Your task to perform on an android device: check data usage Image 0: 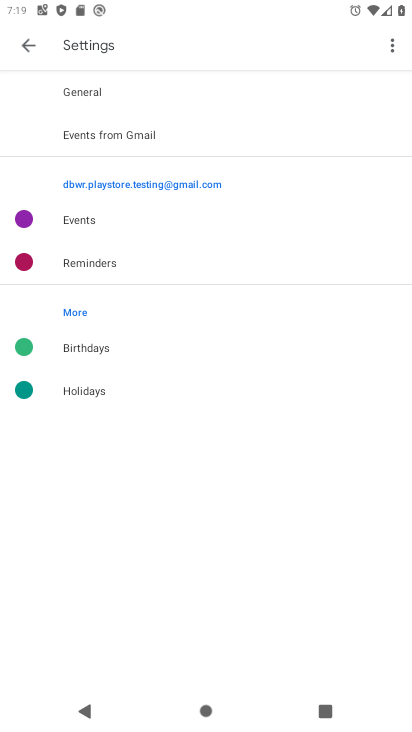
Step 0: press home button
Your task to perform on an android device: check data usage Image 1: 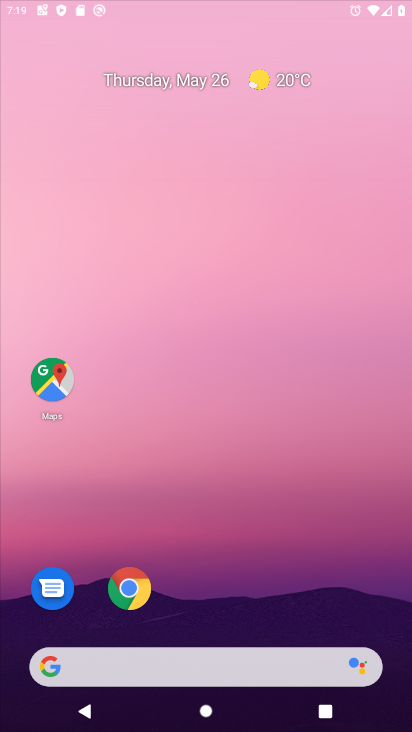
Step 1: drag from (346, 646) to (294, 14)
Your task to perform on an android device: check data usage Image 2: 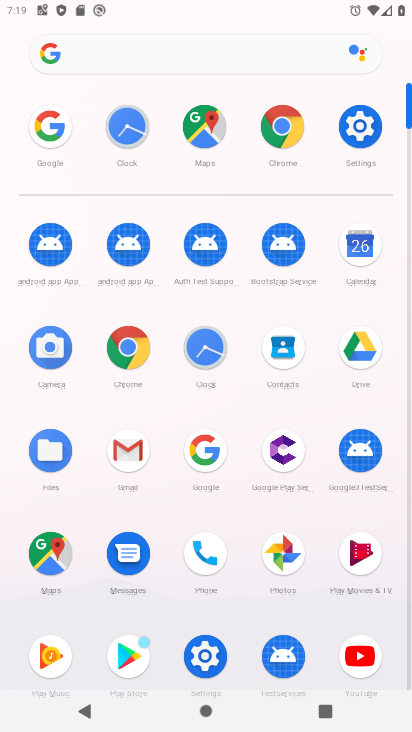
Step 2: click (361, 116)
Your task to perform on an android device: check data usage Image 3: 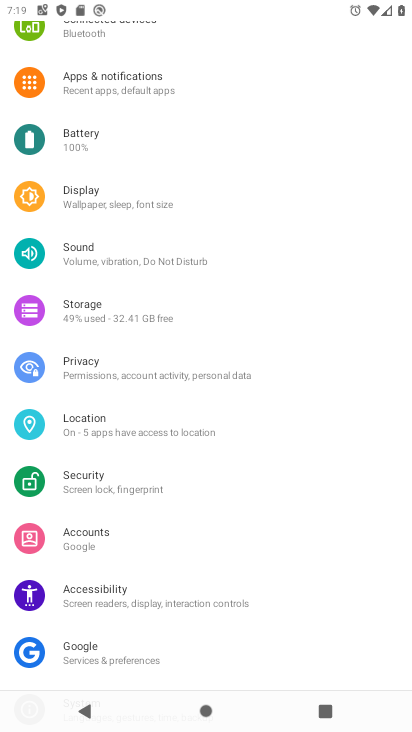
Step 3: drag from (194, 93) to (230, 590)
Your task to perform on an android device: check data usage Image 4: 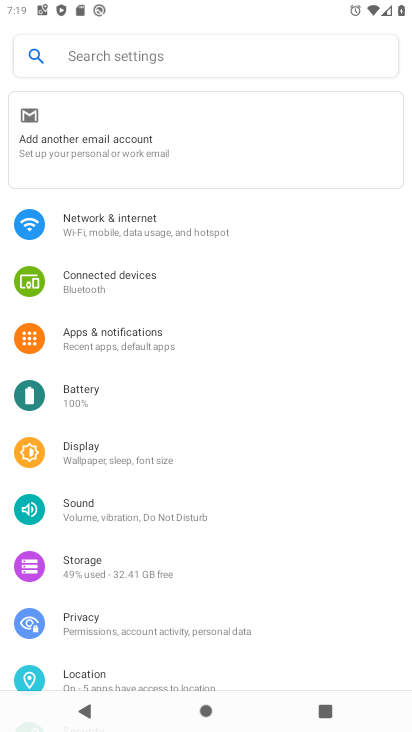
Step 4: click (183, 242)
Your task to perform on an android device: check data usage Image 5: 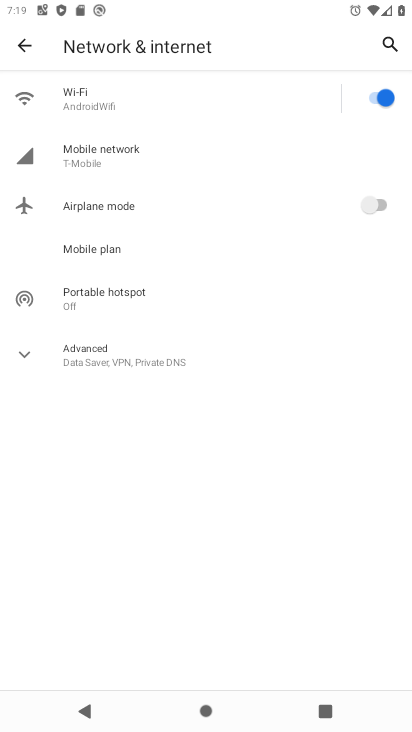
Step 5: click (92, 151)
Your task to perform on an android device: check data usage Image 6: 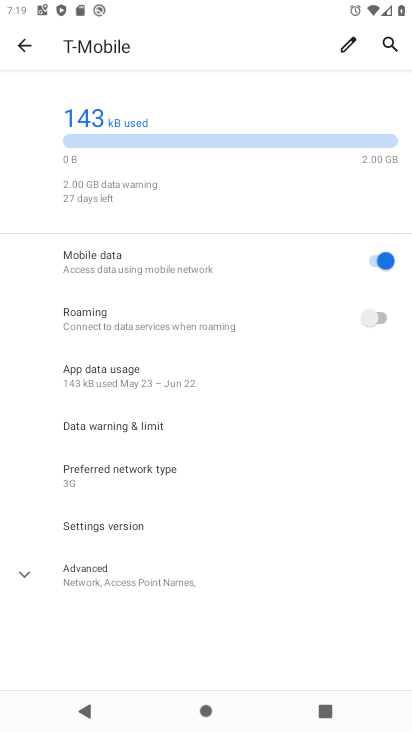
Step 6: click (159, 397)
Your task to perform on an android device: check data usage Image 7: 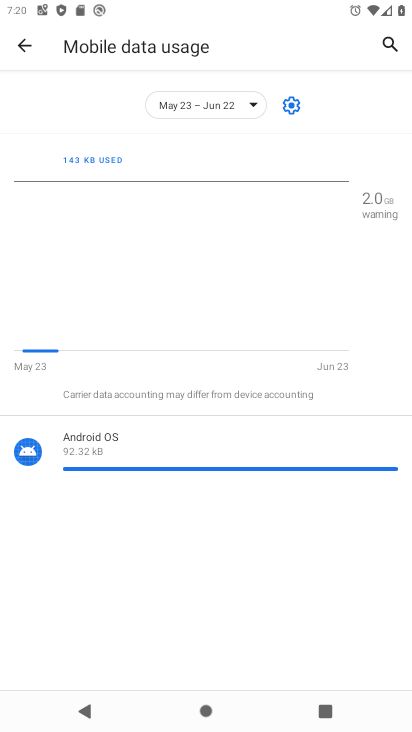
Step 7: task complete